Your task to perform on an android device: delete the emails in spam in the gmail app Image 0: 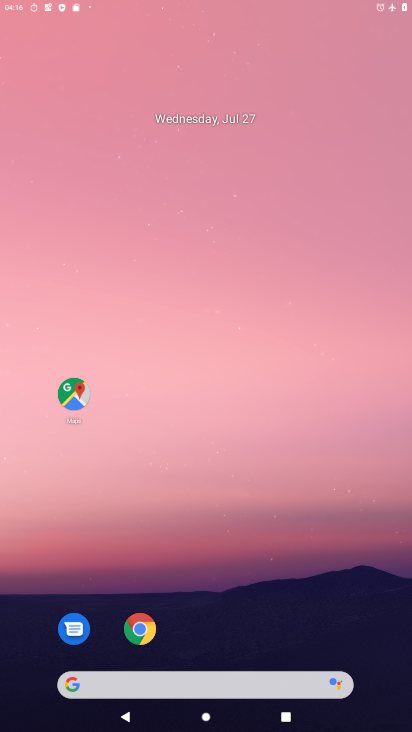
Step 0: drag from (293, 556) to (277, 88)
Your task to perform on an android device: delete the emails in spam in the gmail app Image 1: 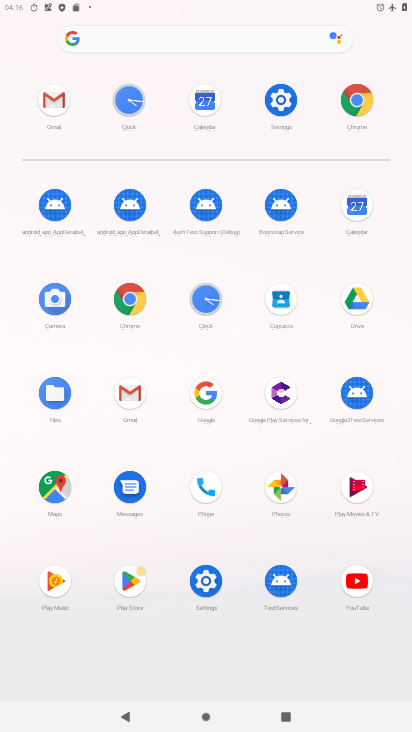
Step 1: click (140, 396)
Your task to perform on an android device: delete the emails in spam in the gmail app Image 2: 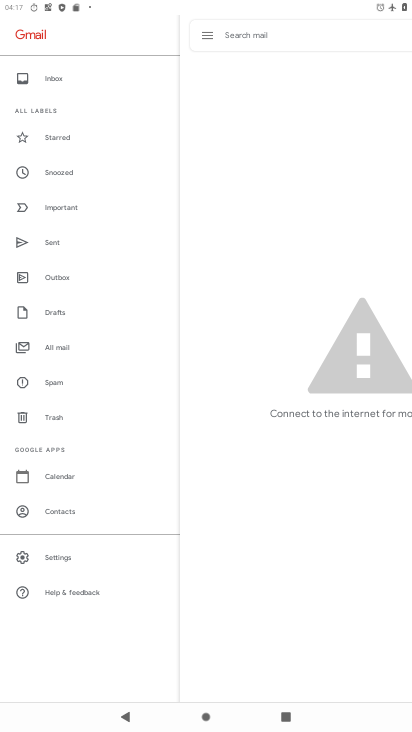
Step 2: click (53, 385)
Your task to perform on an android device: delete the emails in spam in the gmail app Image 3: 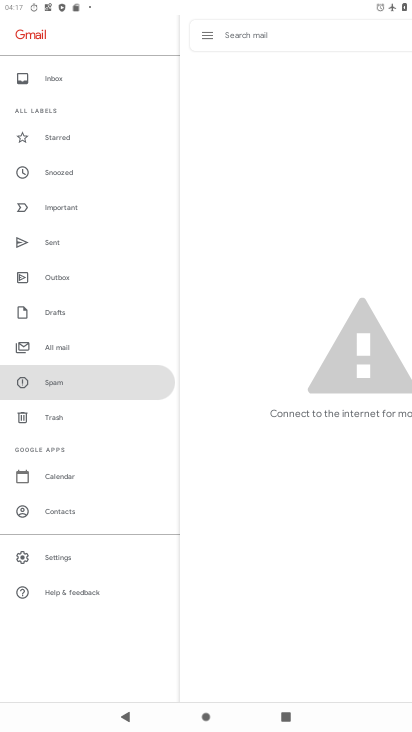
Step 3: task complete